Your task to perform on an android device: turn on bluetooth scan Image 0: 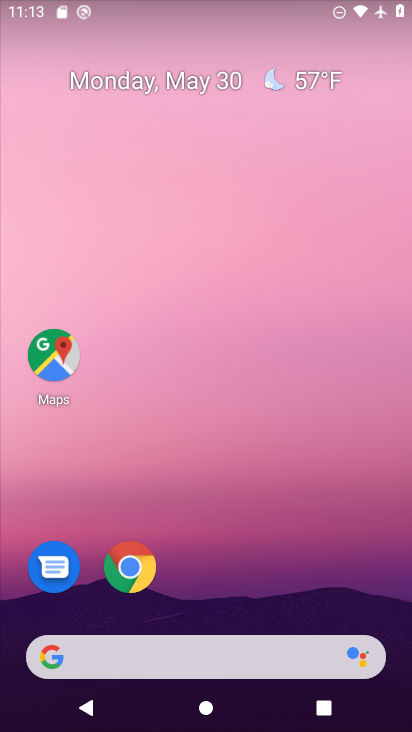
Step 0: drag from (201, 598) to (232, 188)
Your task to perform on an android device: turn on bluetooth scan Image 1: 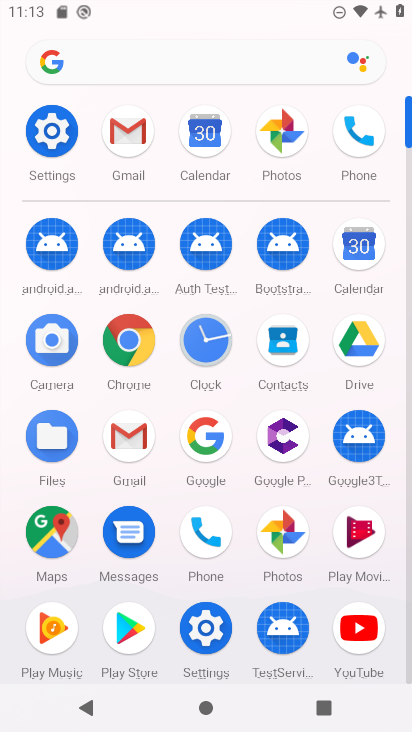
Step 1: click (67, 143)
Your task to perform on an android device: turn on bluetooth scan Image 2: 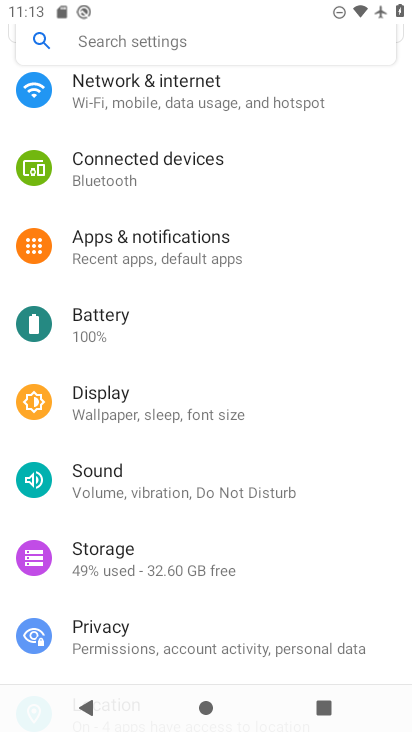
Step 2: drag from (163, 550) to (175, 257)
Your task to perform on an android device: turn on bluetooth scan Image 3: 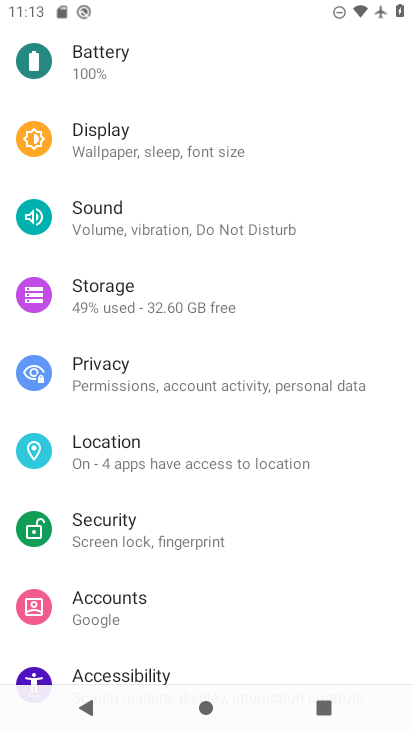
Step 3: click (132, 450)
Your task to perform on an android device: turn on bluetooth scan Image 4: 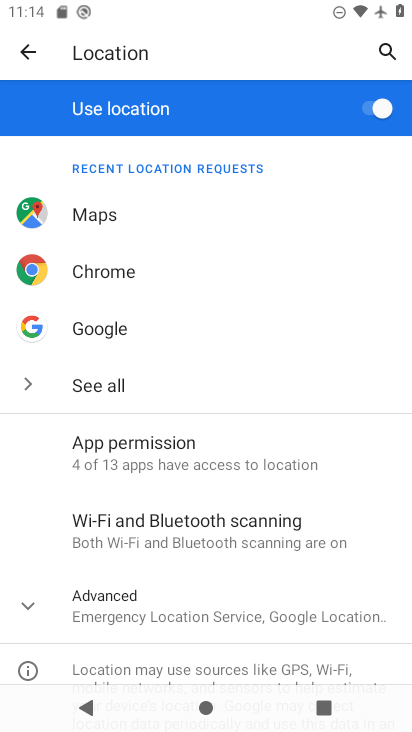
Step 4: click (216, 551)
Your task to perform on an android device: turn on bluetooth scan Image 5: 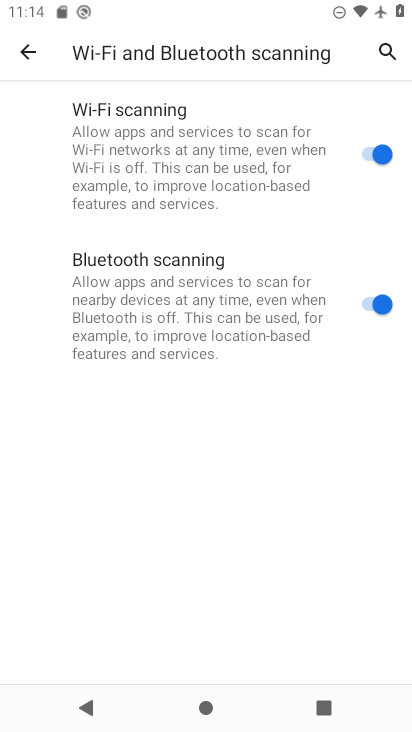
Step 5: task complete